Your task to perform on an android device: check out phone information Image 0: 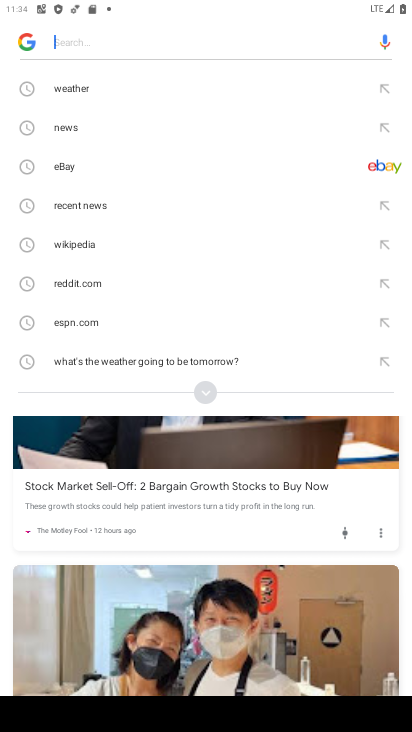
Step 0: press home button
Your task to perform on an android device: check out phone information Image 1: 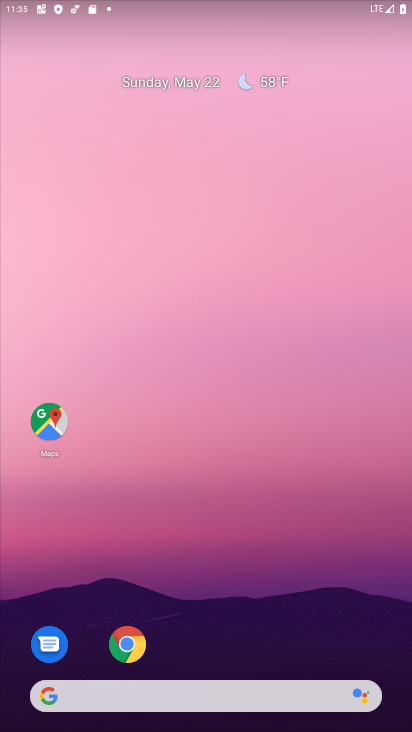
Step 1: drag from (302, 661) to (276, 243)
Your task to perform on an android device: check out phone information Image 2: 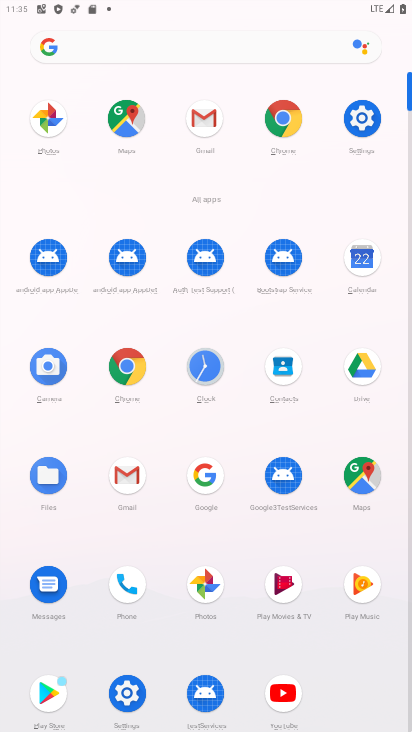
Step 2: click (360, 110)
Your task to perform on an android device: check out phone information Image 3: 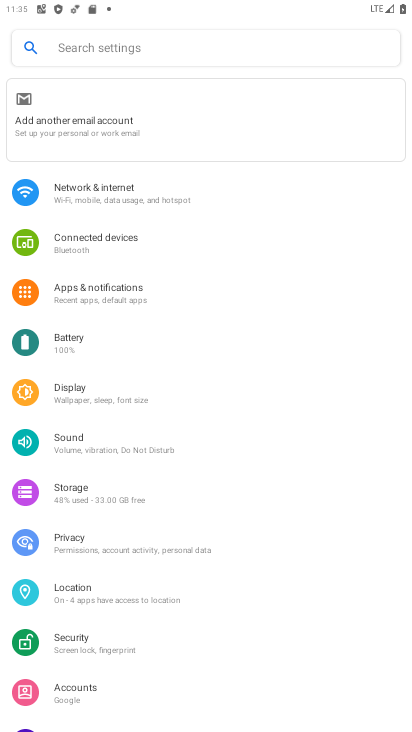
Step 3: drag from (242, 594) to (214, 296)
Your task to perform on an android device: check out phone information Image 4: 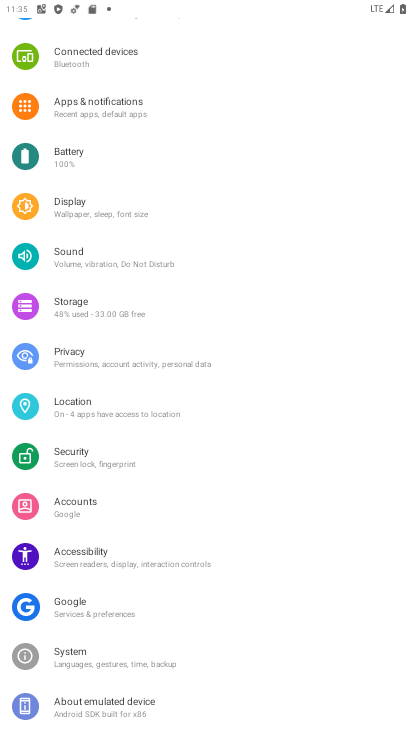
Step 4: drag from (181, 646) to (223, 256)
Your task to perform on an android device: check out phone information Image 5: 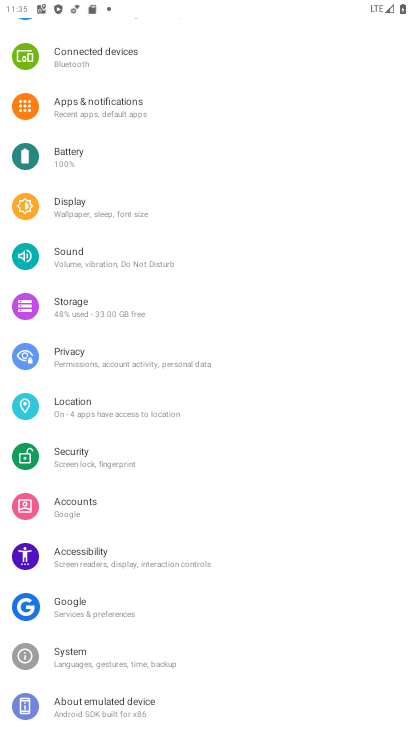
Step 5: click (129, 707)
Your task to perform on an android device: check out phone information Image 6: 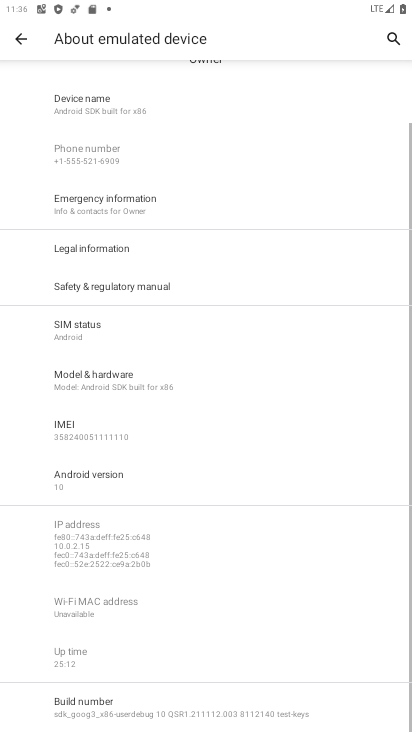
Step 6: click (133, 376)
Your task to perform on an android device: check out phone information Image 7: 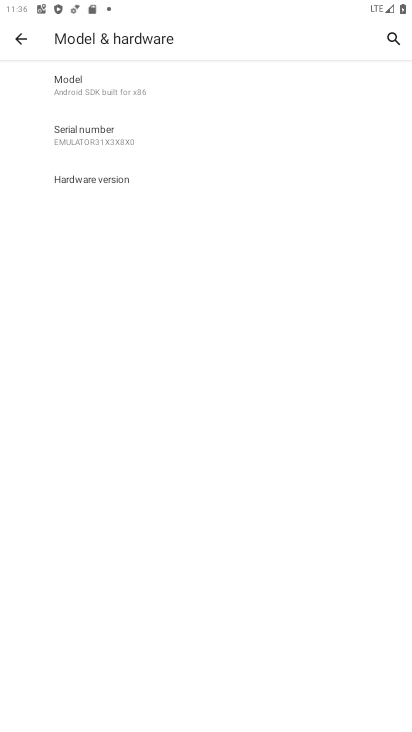
Step 7: task complete